Your task to perform on an android device: turn on showing notifications on the lock screen Image 0: 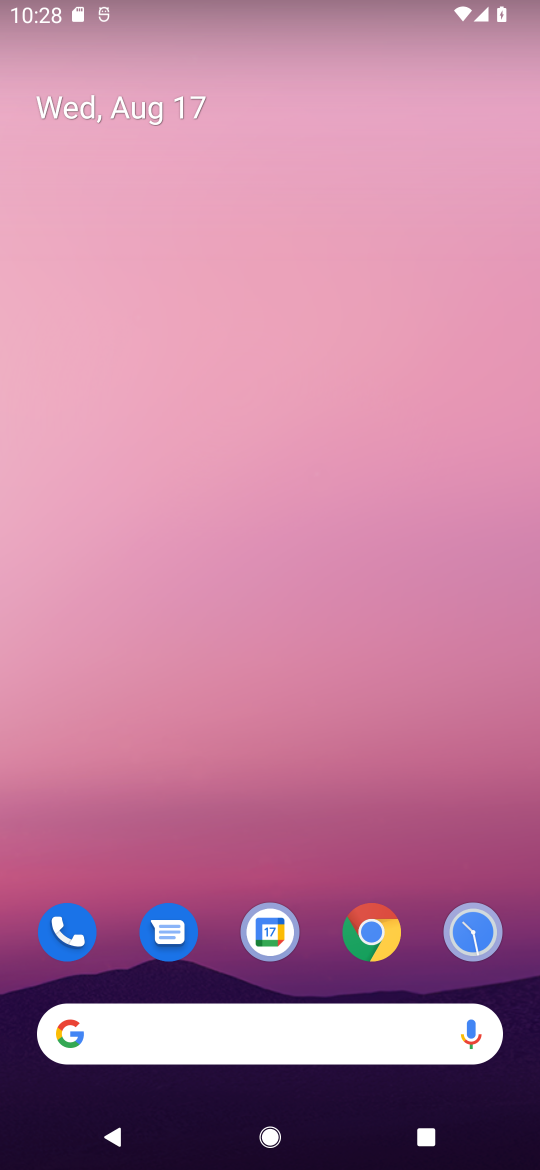
Step 0: drag from (340, 965) to (333, 13)
Your task to perform on an android device: turn on showing notifications on the lock screen Image 1: 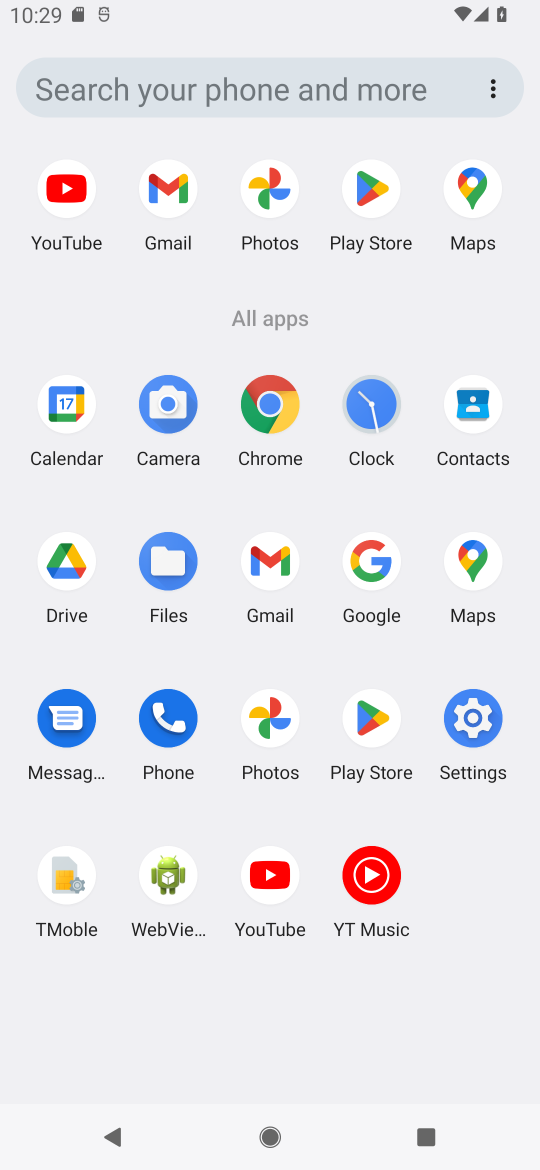
Step 1: click (474, 716)
Your task to perform on an android device: turn on showing notifications on the lock screen Image 2: 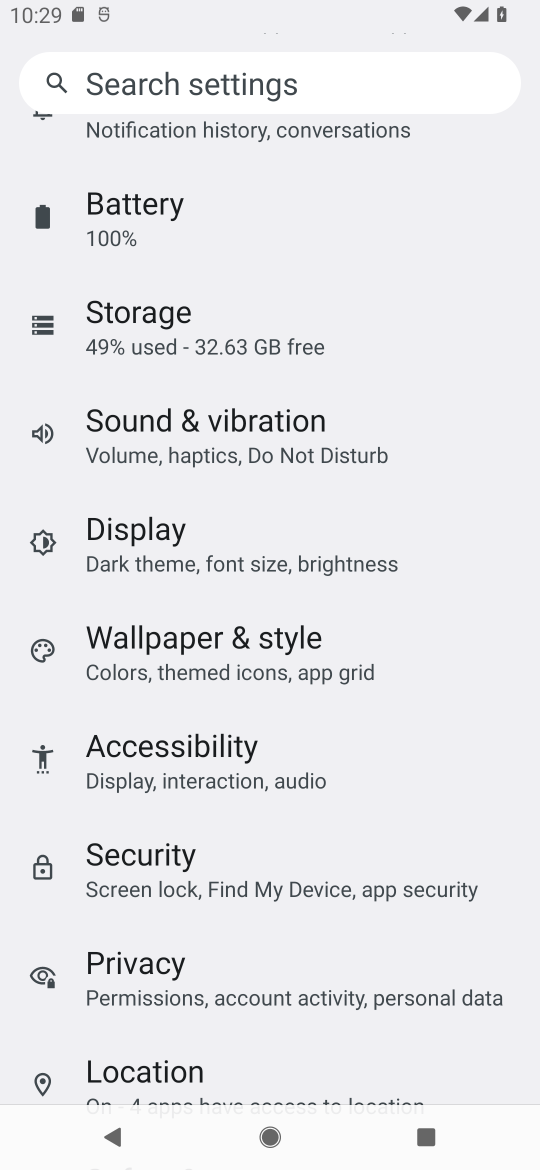
Step 2: drag from (133, 170) to (189, 875)
Your task to perform on an android device: turn on showing notifications on the lock screen Image 3: 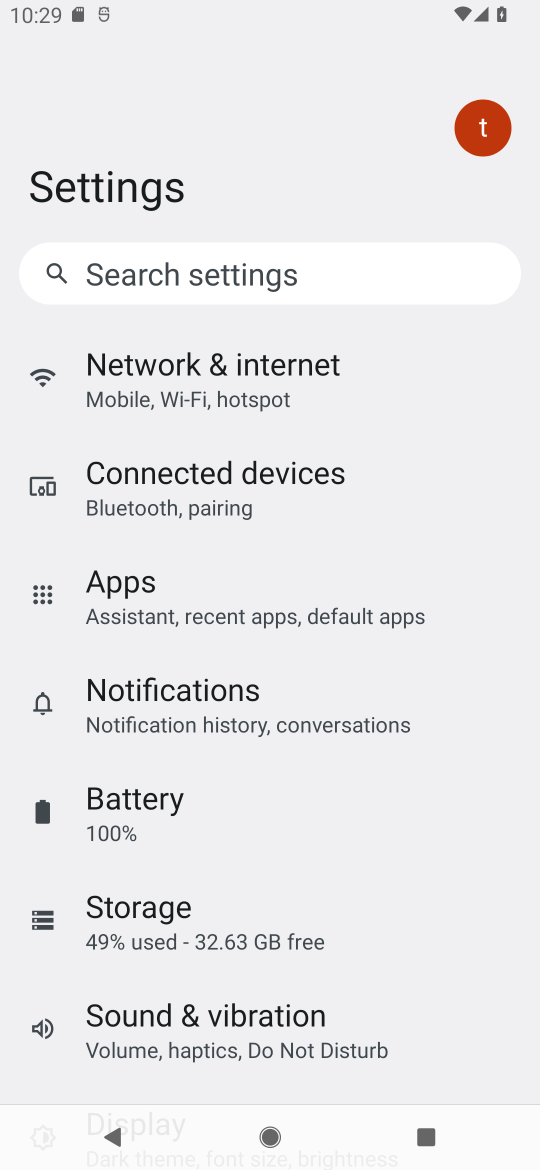
Step 3: click (174, 702)
Your task to perform on an android device: turn on showing notifications on the lock screen Image 4: 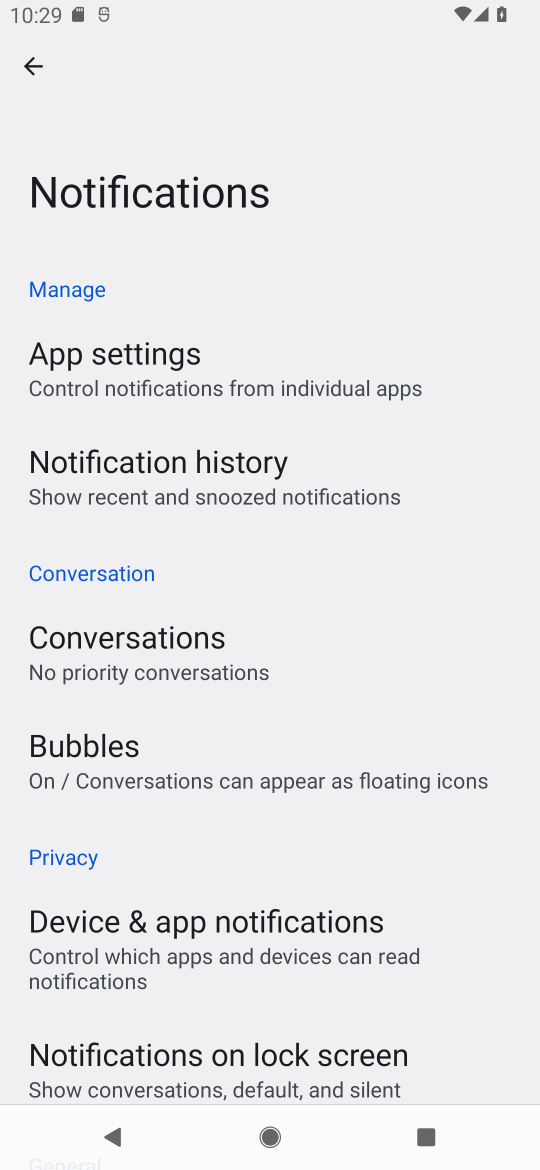
Step 4: drag from (201, 1034) to (168, 670)
Your task to perform on an android device: turn on showing notifications on the lock screen Image 5: 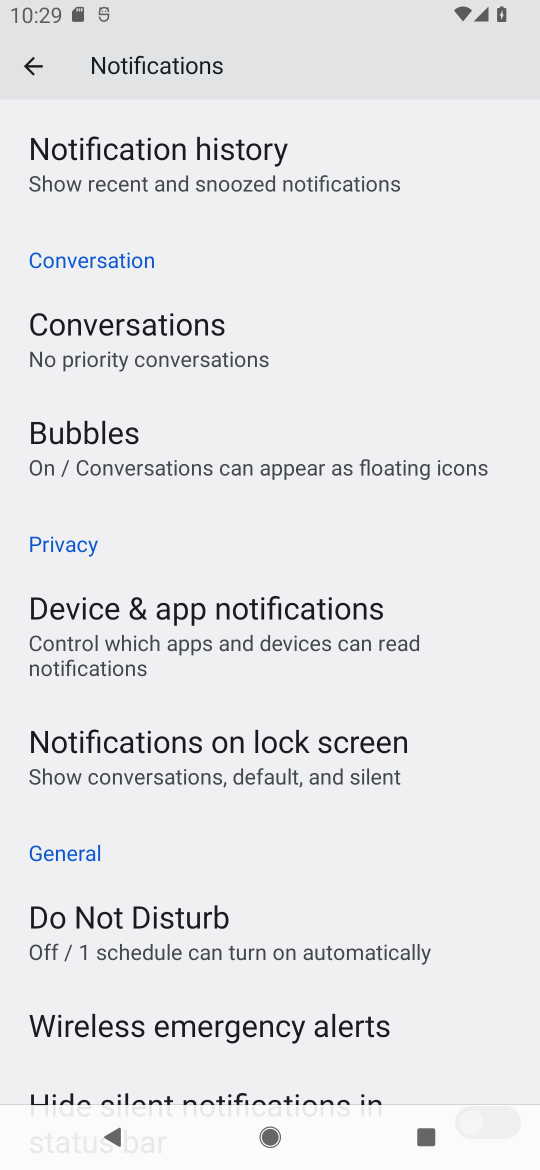
Step 5: click (150, 761)
Your task to perform on an android device: turn on showing notifications on the lock screen Image 6: 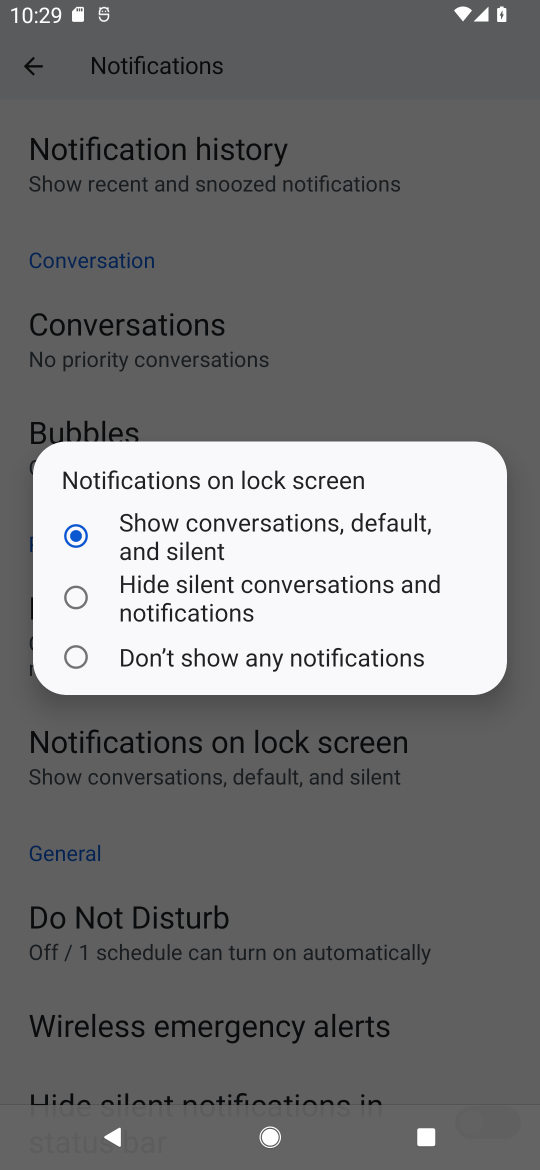
Step 6: task complete